Your task to perform on an android device: move an email to a new category in the gmail app Image 0: 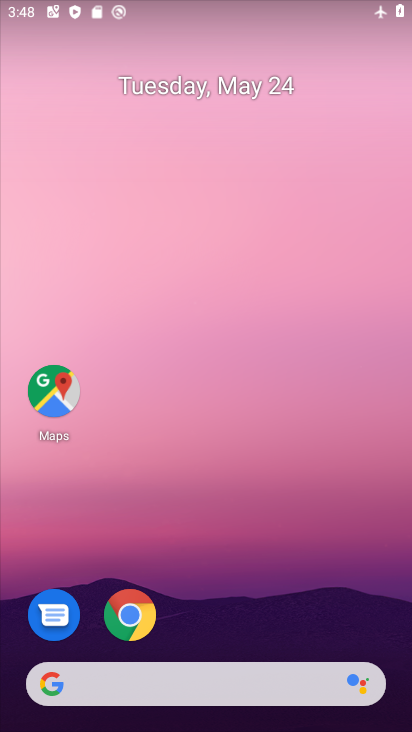
Step 0: drag from (195, 671) to (197, 97)
Your task to perform on an android device: move an email to a new category in the gmail app Image 1: 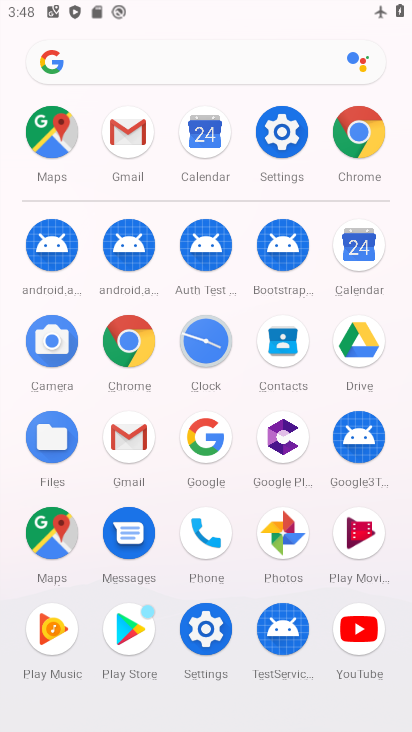
Step 1: click (136, 439)
Your task to perform on an android device: move an email to a new category in the gmail app Image 2: 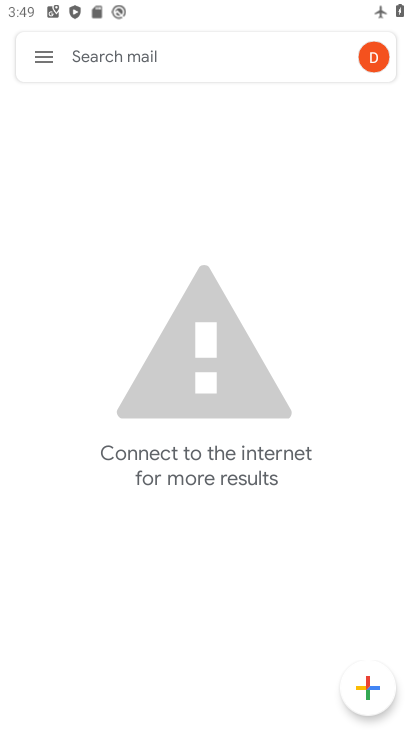
Step 2: task complete